Your task to perform on an android device: Search for Mexican restaurants on Maps Image 0: 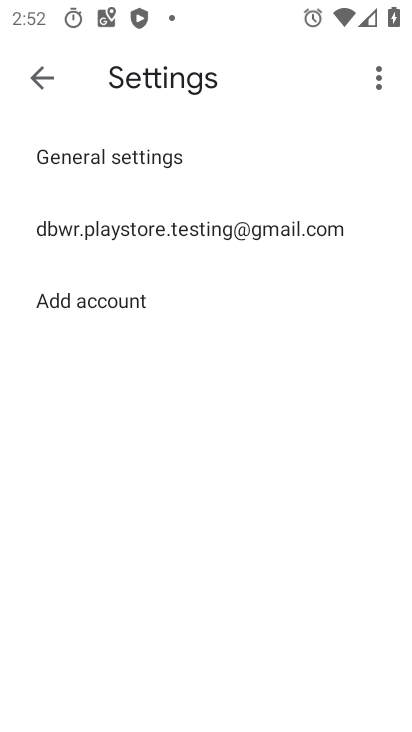
Step 0: press home button
Your task to perform on an android device: Search for Mexican restaurants on Maps Image 1: 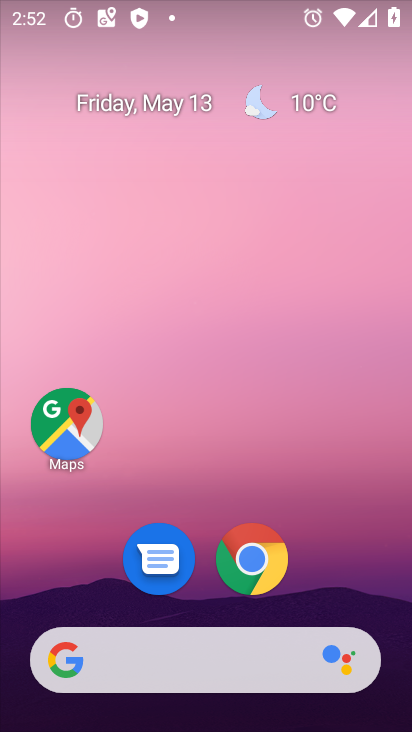
Step 1: click (90, 424)
Your task to perform on an android device: Search for Mexican restaurants on Maps Image 2: 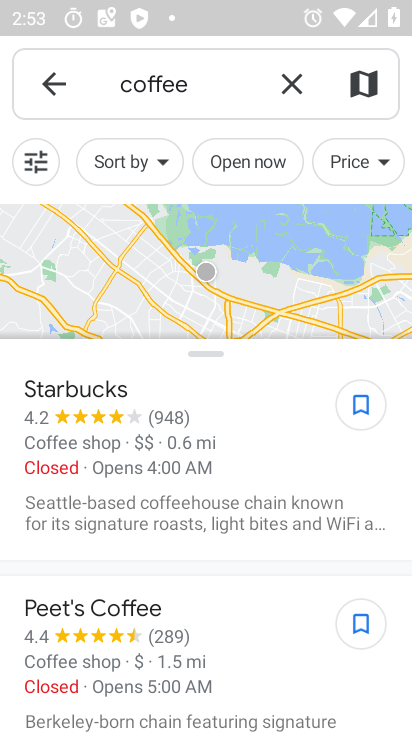
Step 2: click (290, 77)
Your task to perform on an android device: Search for Mexican restaurants on Maps Image 3: 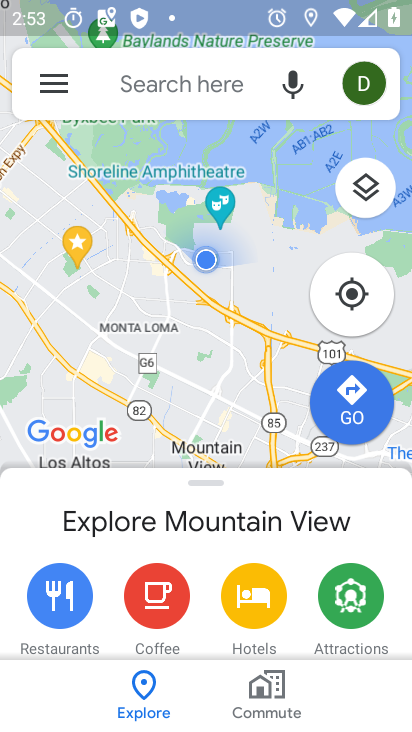
Step 3: click (157, 78)
Your task to perform on an android device: Search for Mexican restaurants on Maps Image 4: 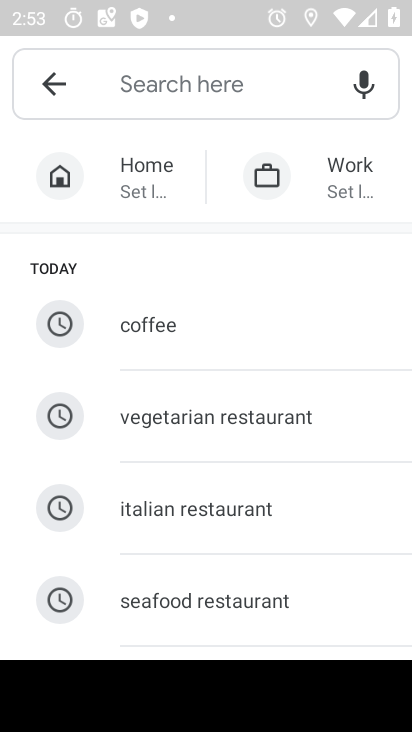
Step 4: type "Mexican restaurants"
Your task to perform on an android device: Search for Mexican restaurants on Maps Image 5: 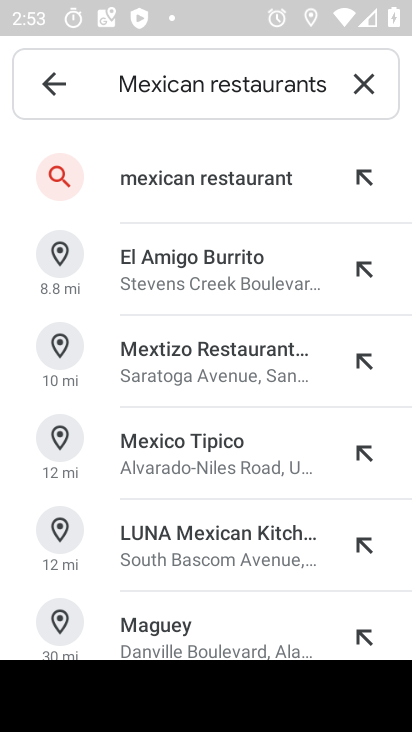
Step 5: click (220, 176)
Your task to perform on an android device: Search for Mexican restaurants on Maps Image 6: 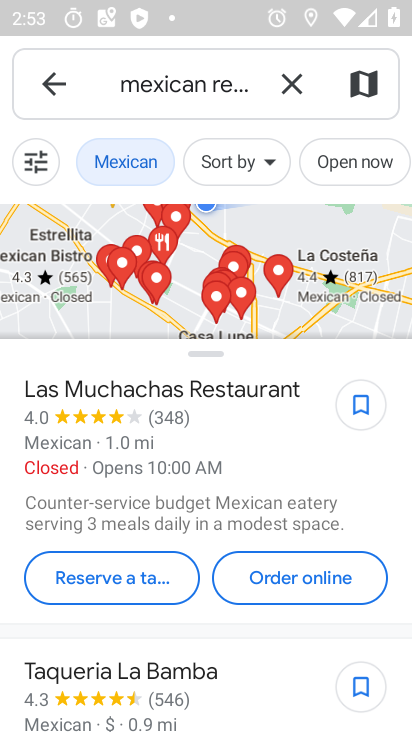
Step 6: task complete